Your task to perform on an android device: turn off javascript in the chrome app Image 0: 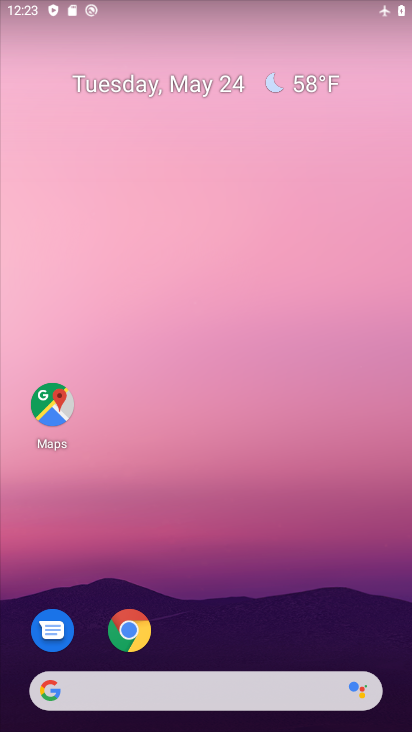
Step 0: click (130, 627)
Your task to perform on an android device: turn off javascript in the chrome app Image 1: 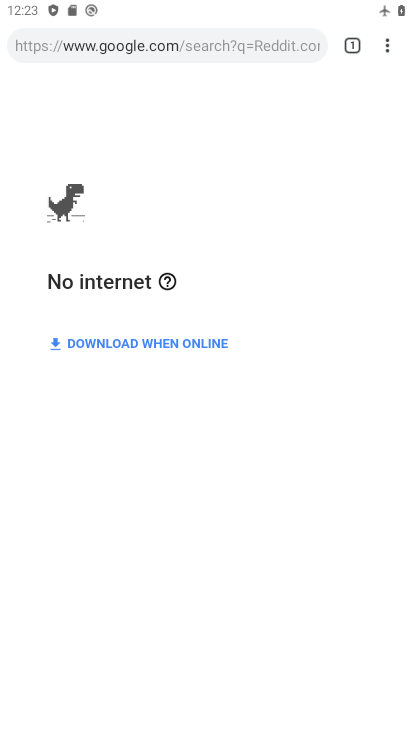
Step 1: click (388, 45)
Your task to perform on an android device: turn off javascript in the chrome app Image 2: 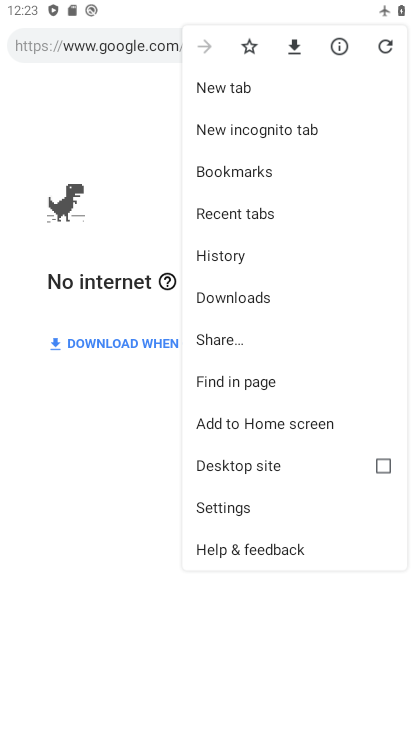
Step 2: click (240, 506)
Your task to perform on an android device: turn off javascript in the chrome app Image 3: 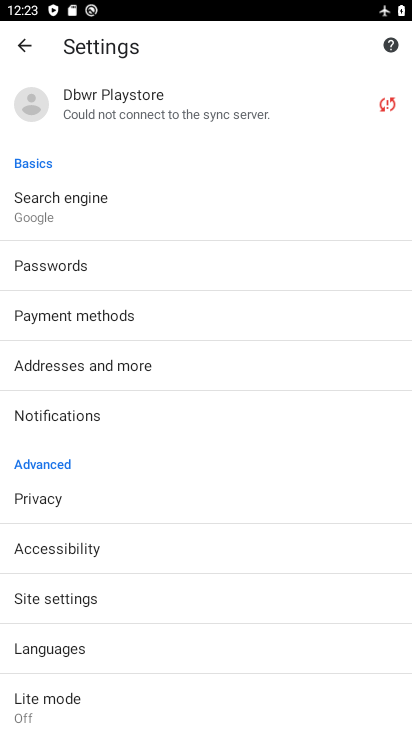
Step 3: click (63, 599)
Your task to perform on an android device: turn off javascript in the chrome app Image 4: 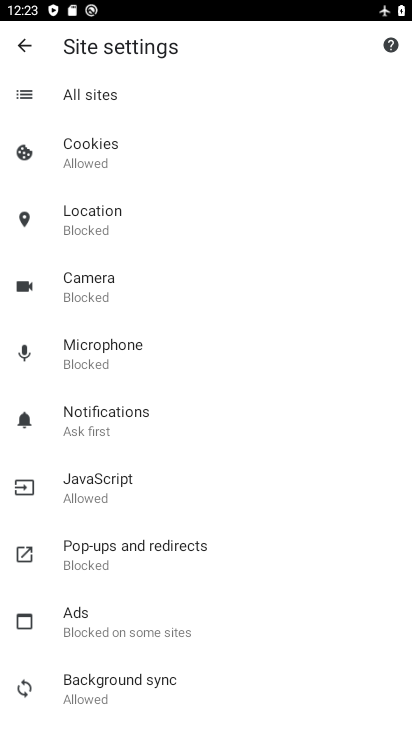
Step 4: click (123, 492)
Your task to perform on an android device: turn off javascript in the chrome app Image 5: 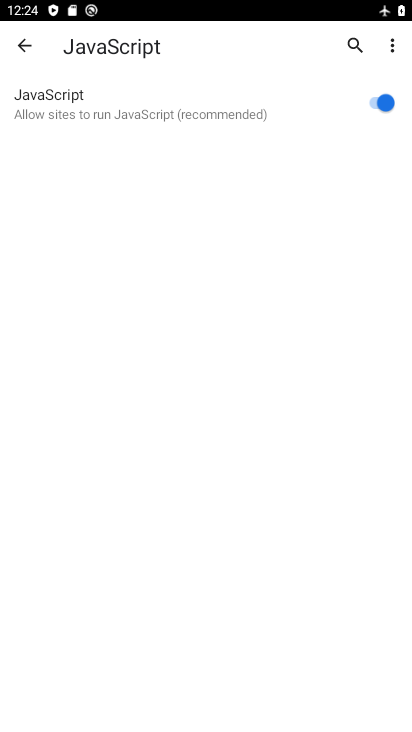
Step 5: click (389, 109)
Your task to perform on an android device: turn off javascript in the chrome app Image 6: 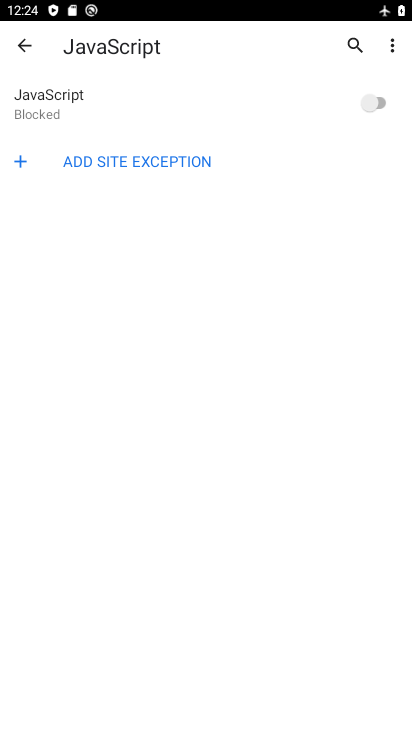
Step 6: task complete